Your task to perform on an android device: Open accessibility settings Image 0: 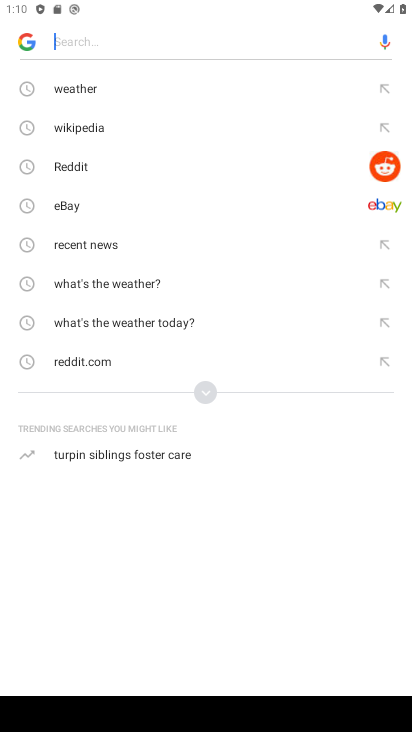
Step 0: press home button
Your task to perform on an android device: Open accessibility settings Image 1: 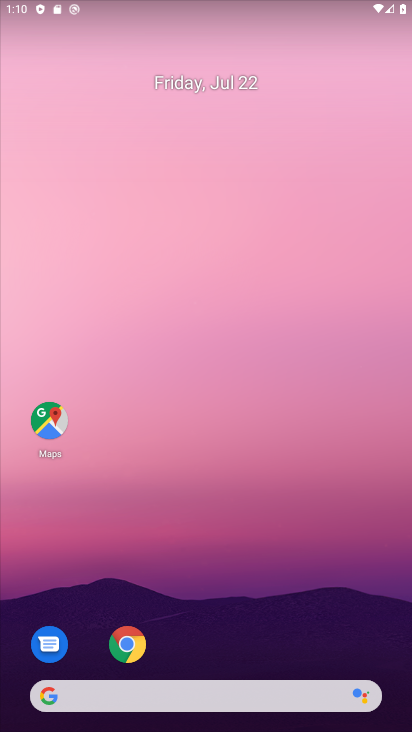
Step 1: drag from (179, 651) to (179, 200)
Your task to perform on an android device: Open accessibility settings Image 2: 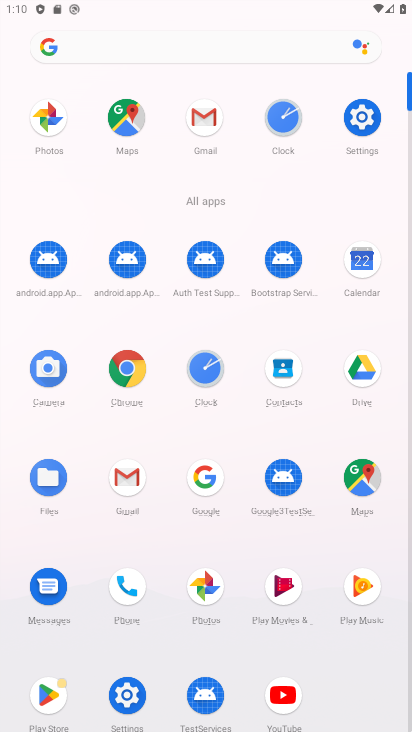
Step 2: click (358, 118)
Your task to perform on an android device: Open accessibility settings Image 3: 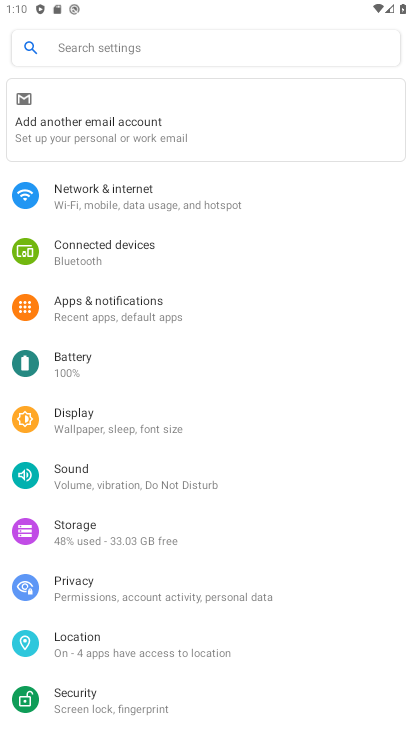
Step 3: drag from (91, 708) to (81, 344)
Your task to perform on an android device: Open accessibility settings Image 4: 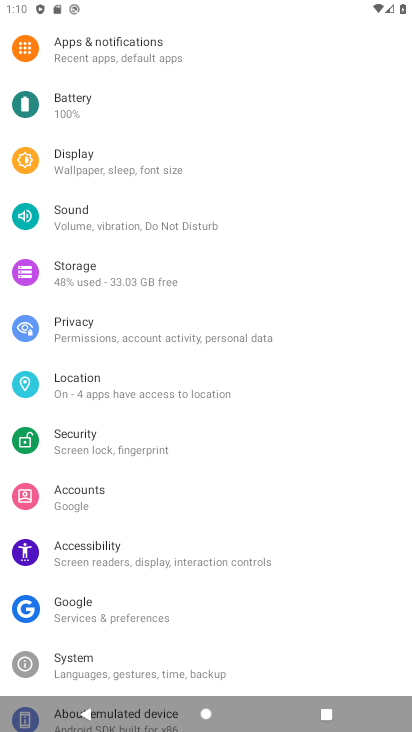
Step 4: click (102, 554)
Your task to perform on an android device: Open accessibility settings Image 5: 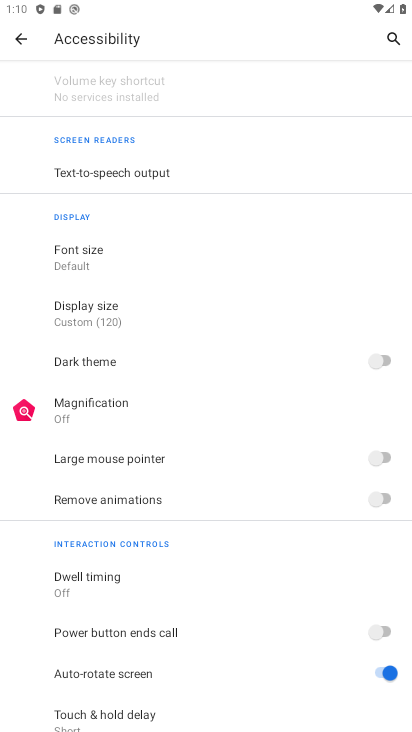
Step 5: click (144, 323)
Your task to perform on an android device: Open accessibility settings Image 6: 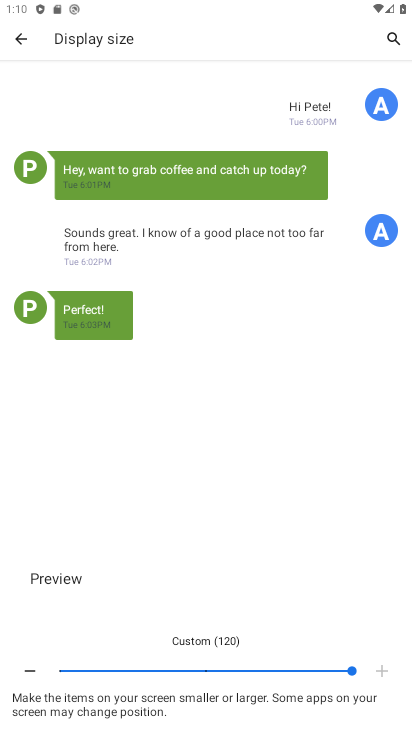
Step 6: task complete